Your task to perform on an android device: Open the stopwatch Image 0: 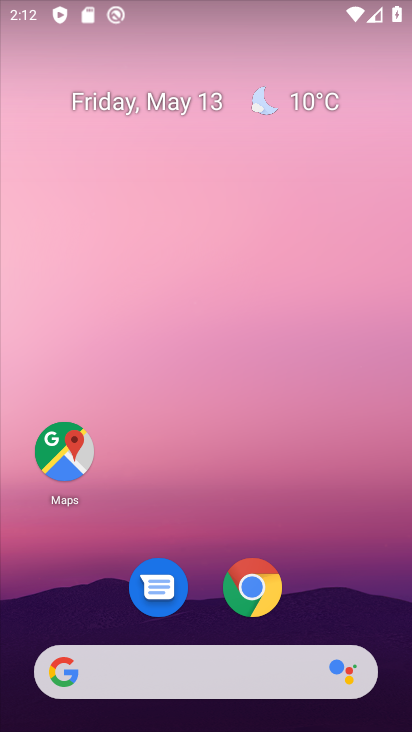
Step 0: drag from (349, 604) to (367, 0)
Your task to perform on an android device: Open the stopwatch Image 1: 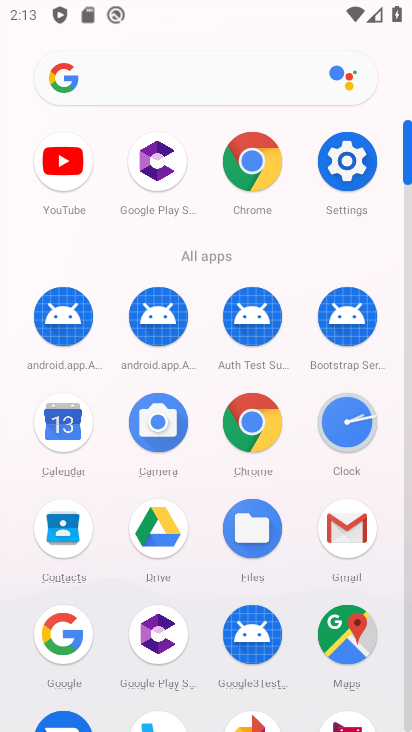
Step 1: click (350, 411)
Your task to perform on an android device: Open the stopwatch Image 2: 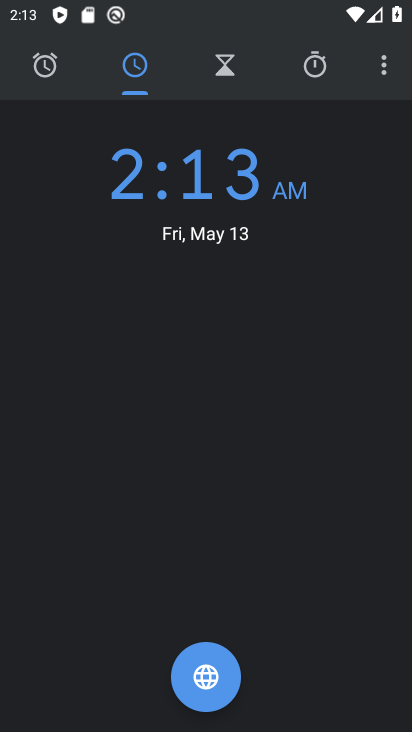
Step 2: click (310, 75)
Your task to perform on an android device: Open the stopwatch Image 3: 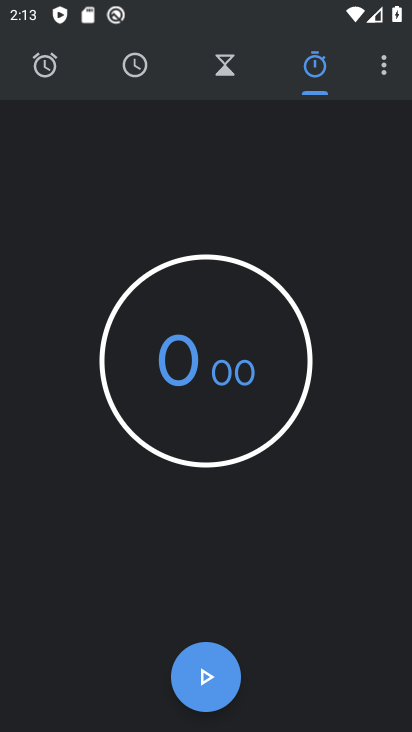
Step 3: task complete